Your task to perform on an android device: Go to accessibility settings Image 0: 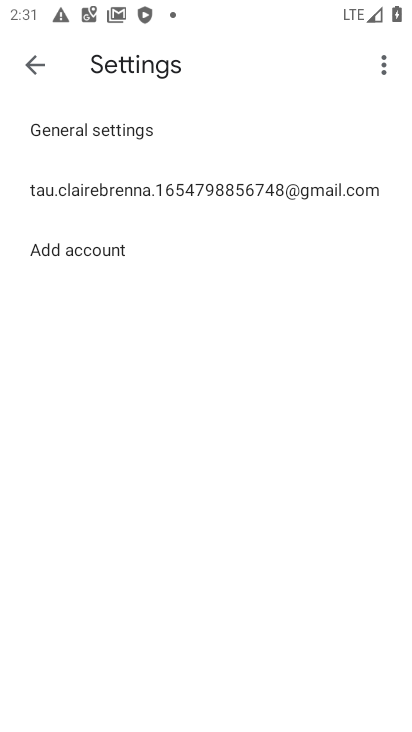
Step 0: press home button
Your task to perform on an android device: Go to accessibility settings Image 1: 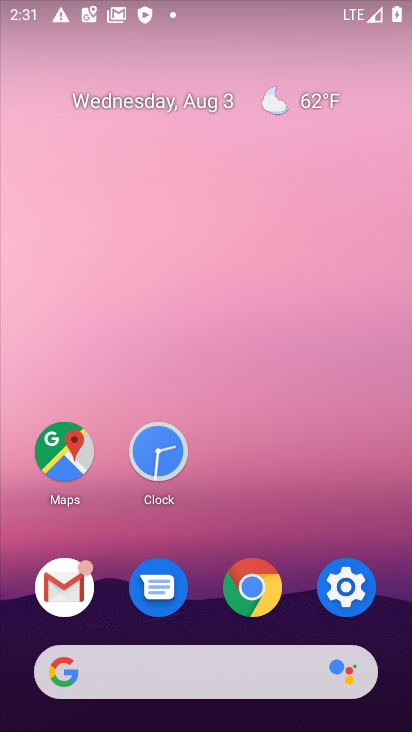
Step 1: click (345, 588)
Your task to perform on an android device: Go to accessibility settings Image 2: 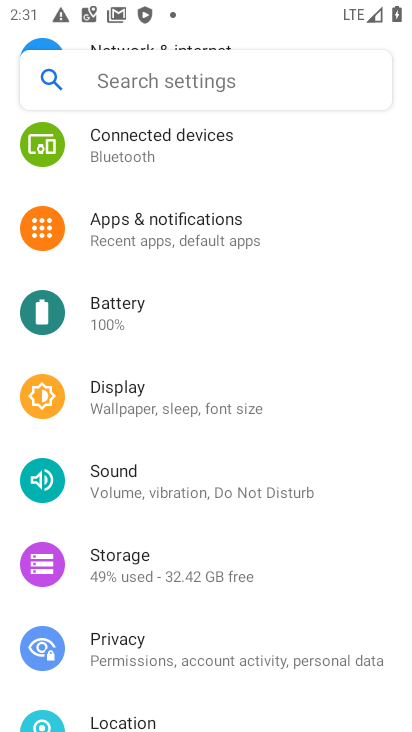
Step 2: drag from (233, 604) to (214, 264)
Your task to perform on an android device: Go to accessibility settings Image 3: 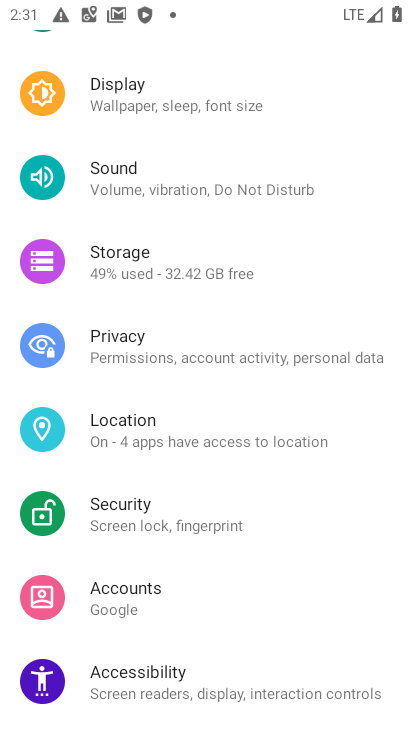
Step 3: click (149, 666)
Your task to perform on an android device: Go to accessibility settings Image 4: 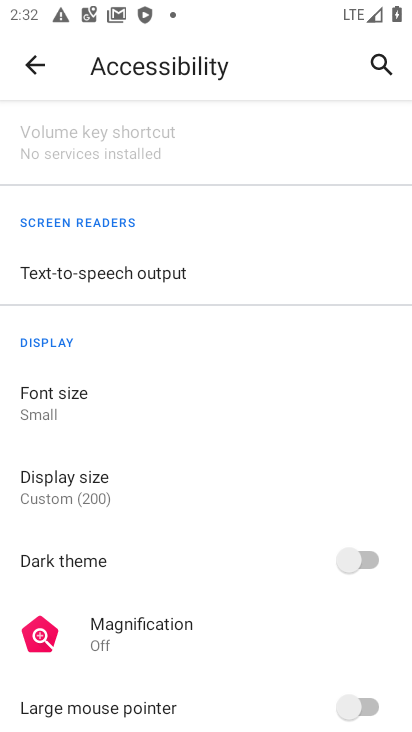
Step 4: task complete